Your task to perform on an android device: Do I have any events this weekend? Image 0: 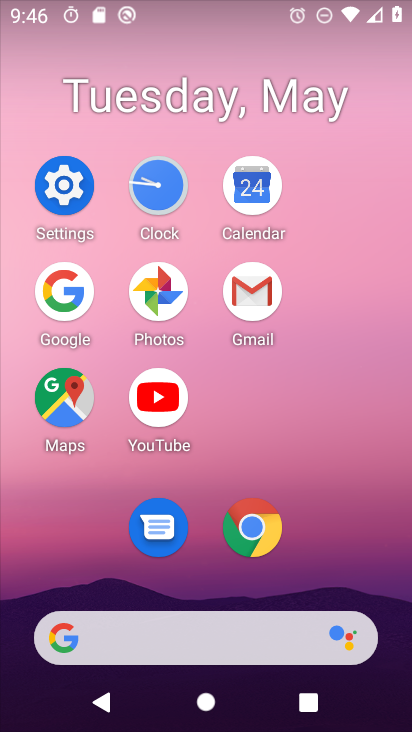
Step 0: click (255, 192)
Your task to perform on an android device: Do I have any events this weekend? Image 1: 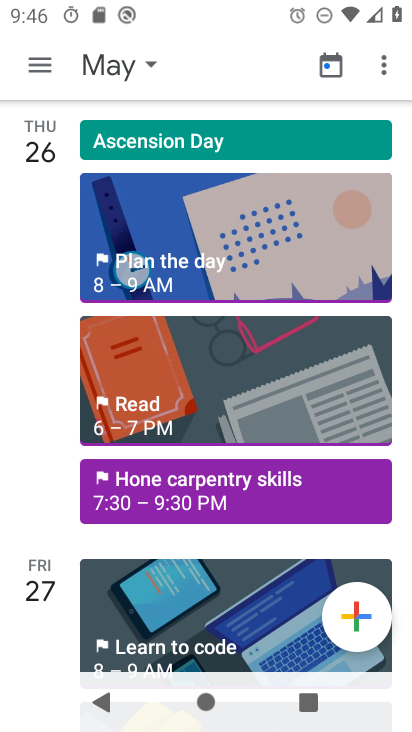
Step 1: click (41, 55)
Your task to perform on an android device: Do I have any events this weekend? Image 2: 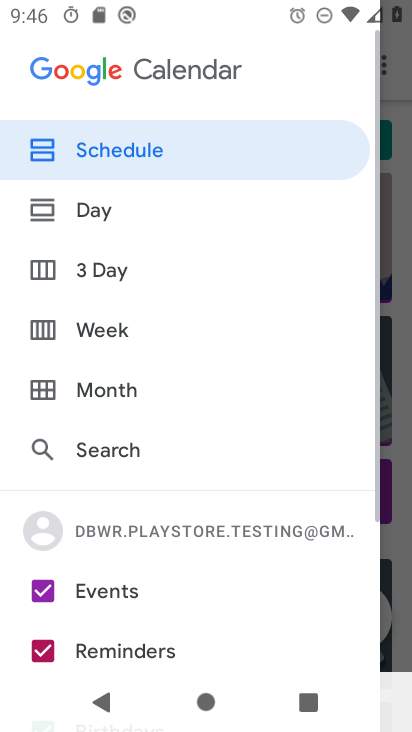
Step 2: click (127, 342)
Your task to perform on an android device: Do I have any events this weekend? Image 3: 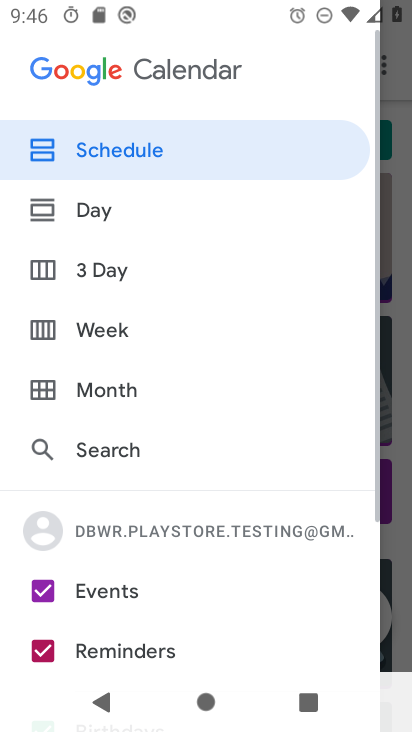
Step 3: click (118, 337)
Your task to perform on an android device: Do I have any events this weekend? Image 4: 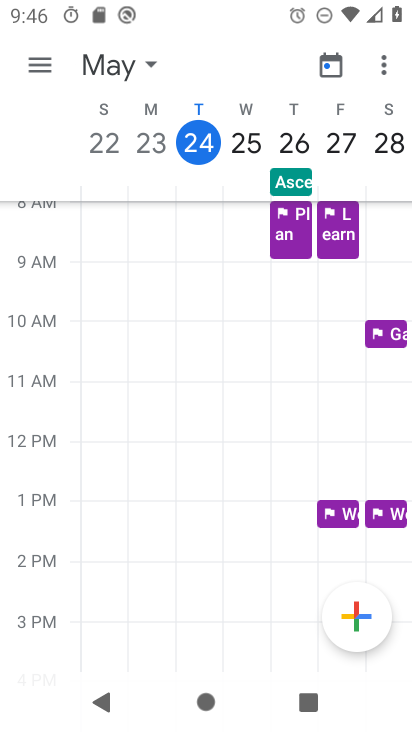
Step 4: click (381, 148)
Your task to perform on an android device: Do I have any events this weekend? Image 5: 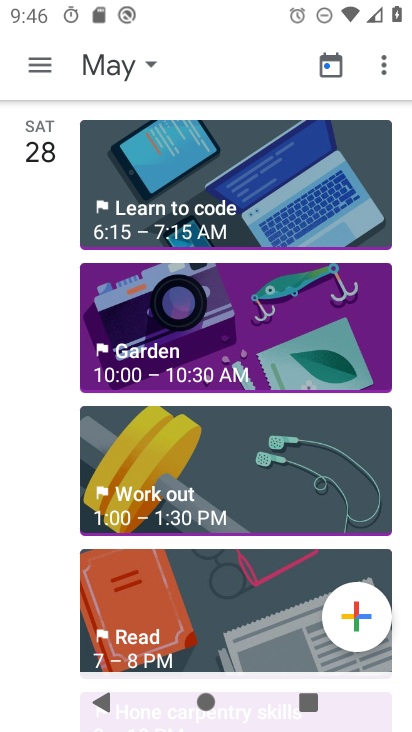
Step 5: task complete